Your task to perform on an android device: turn pop-ups on in chrome Image 0: 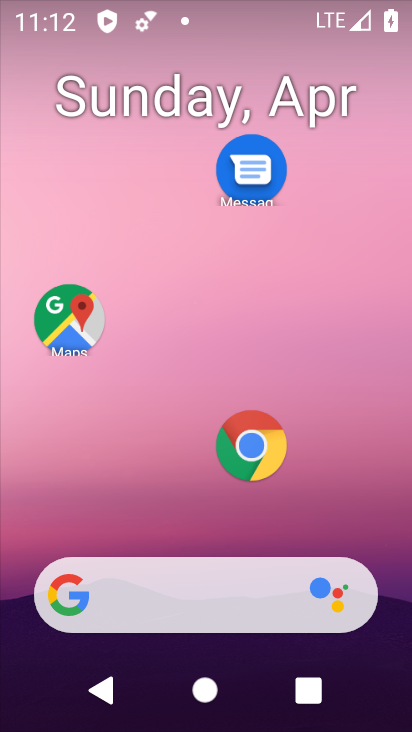
Step 0: press home button
Your task to perform on an android device: turn pop-ups on in chrome Image 1: 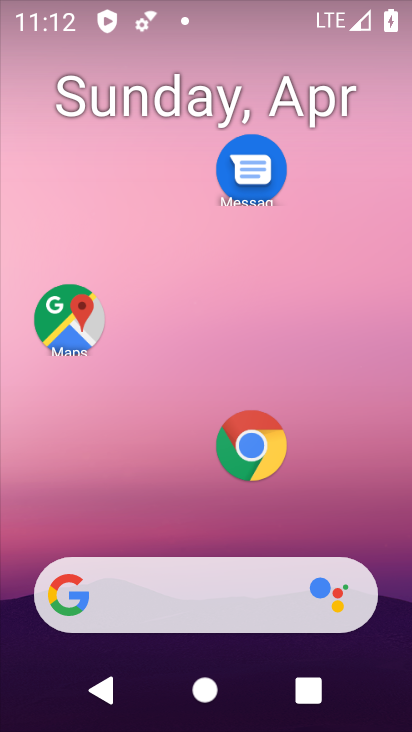
Step 1: click (252, 448)
Your task to perform on an android device: turn pop-ups on in chrome Image 2: 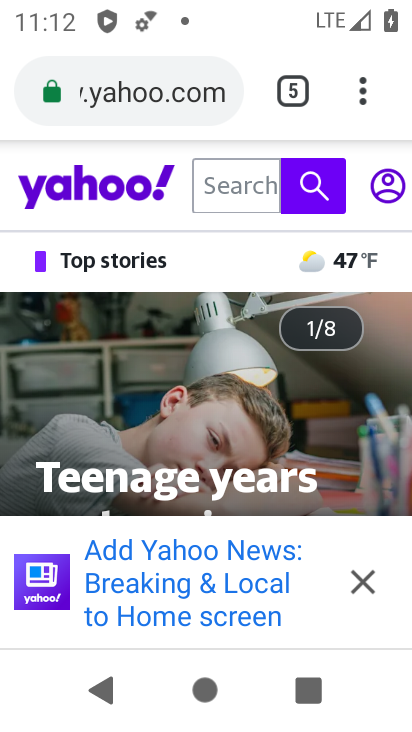
Step 2: drag from (363, 94) to (166, 471)
Your task to perform on an android device: turn pop-ups on in chrome Image 3: 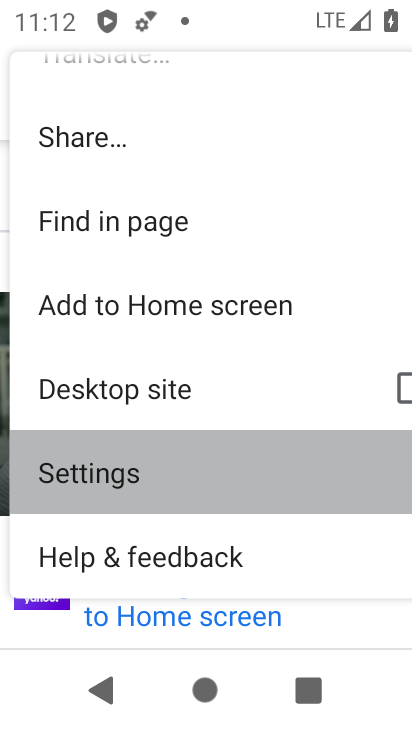
Step 3: click (166, 471)
Your task to perform on an android device: turn pop-ups on in chrome Image 4: 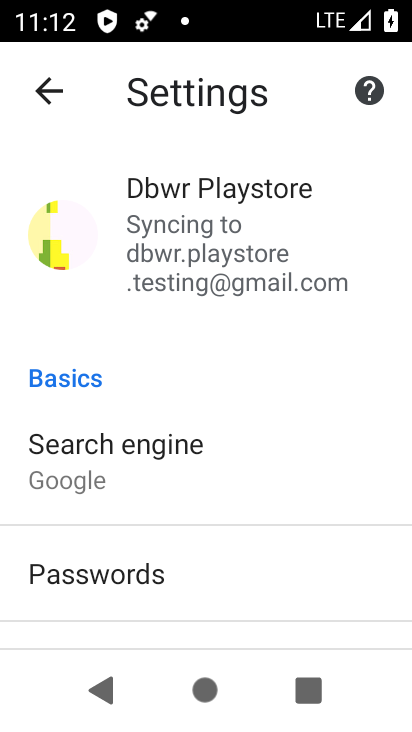
Step 4: drag from (149, 581) to (308, 129)
Your task to perform on an android device: turn pop-ups on in chrome Image 5: 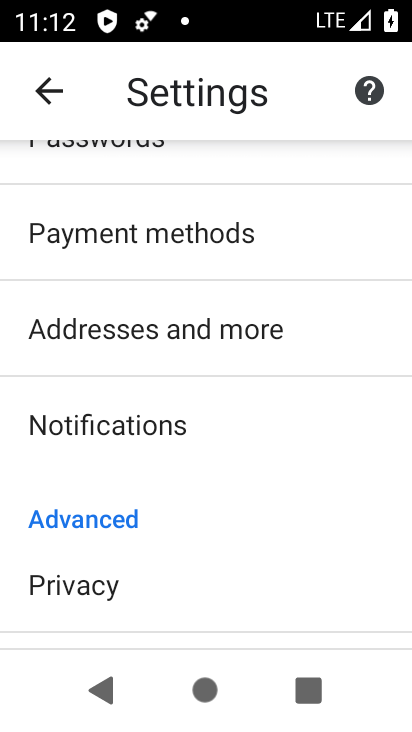
Step 5: drag from (141, 572) to (265, 235)
Your task to perform on an android device: turn pop-ups on in chrome Image 6: 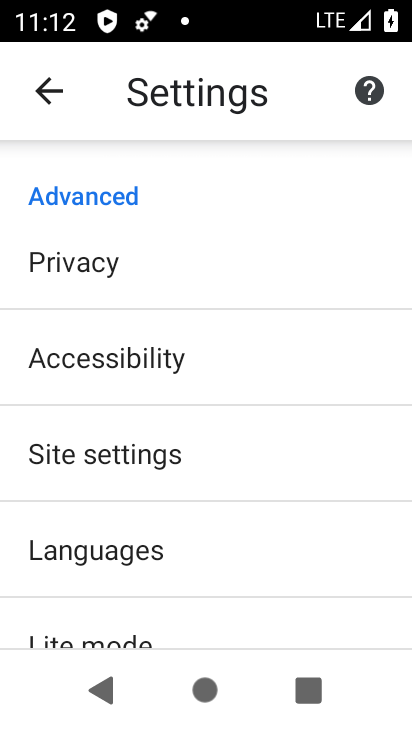
Step 6: click (164, 452)
Your task to perform on an android device: turn pop-ups on in chrome Image 7: 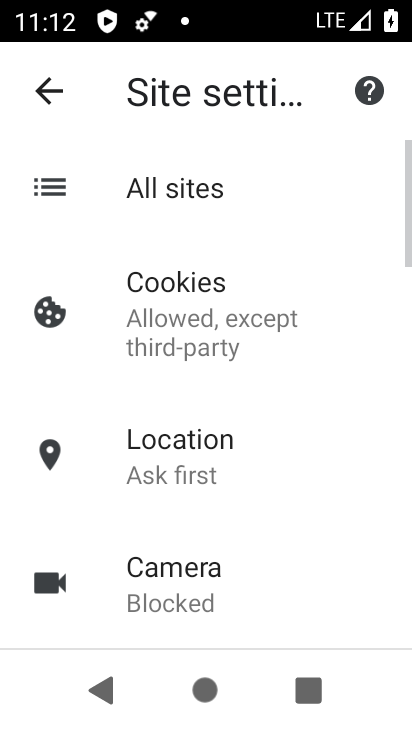
Step 7: drag from (237, 618) to (347, 232)
Your task to perform on an android device: turn pop-ups on in chrome Image 8: 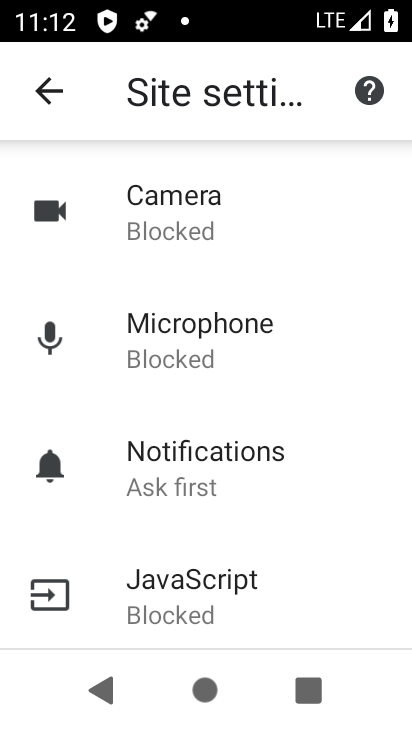
Step 8: drag from (195, 620) to (240, 169)
Your task to perform on an android device: turn pop-ups on in chrome Image 9: 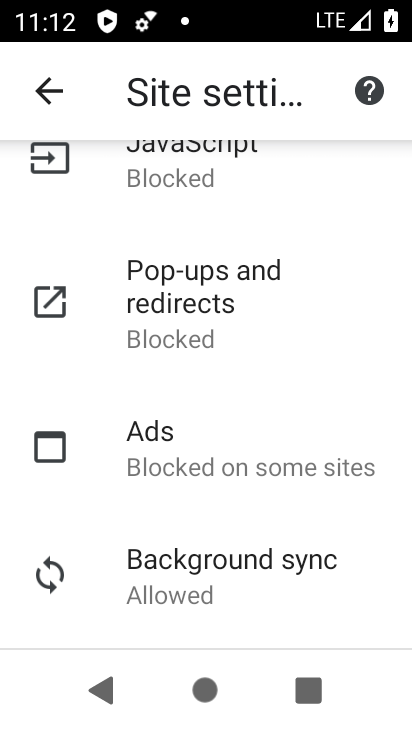
Step 9: click (181, 323)
Your task to perform on an android device: turn pop-ups on in chrome Image 10: 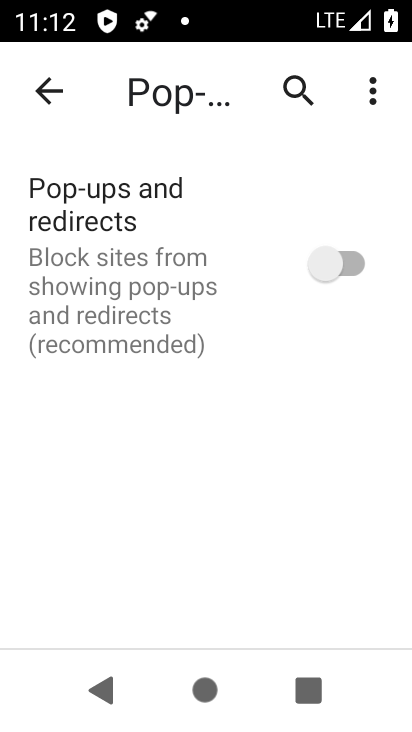
Step 10: click (348, 267)
Your task to perform on an android device: turn pop-ups on in chrome Image 11: 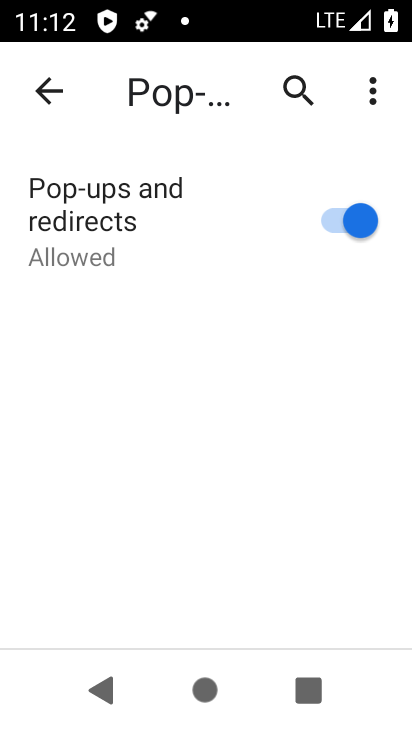
Step 11: task complete